Your task to perform on an android device: What's the weather today? Image 0: 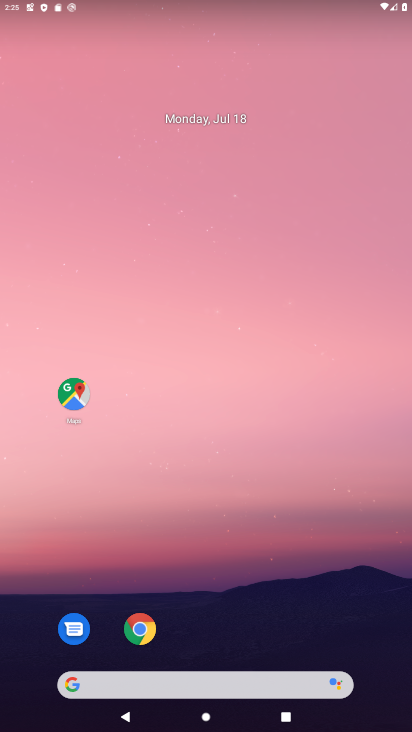
Step 0: drag from (221, 636) to (289, 190)
Your task to perform on an android device: What's the weather today? Image 1: 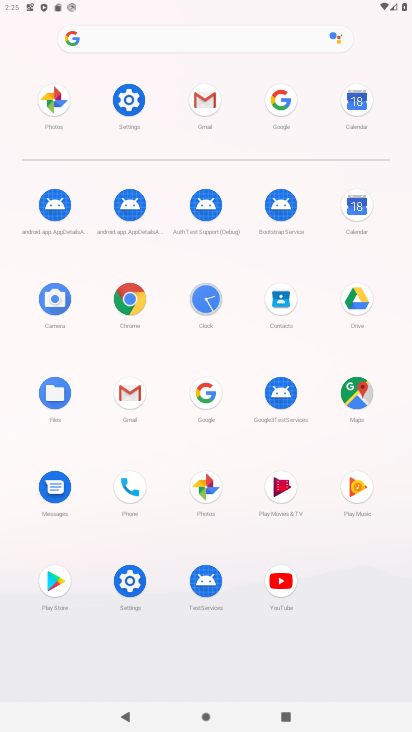
Step 1: click (220, 400)
Your task to perform on an android device: What's the weather today? Image 2: 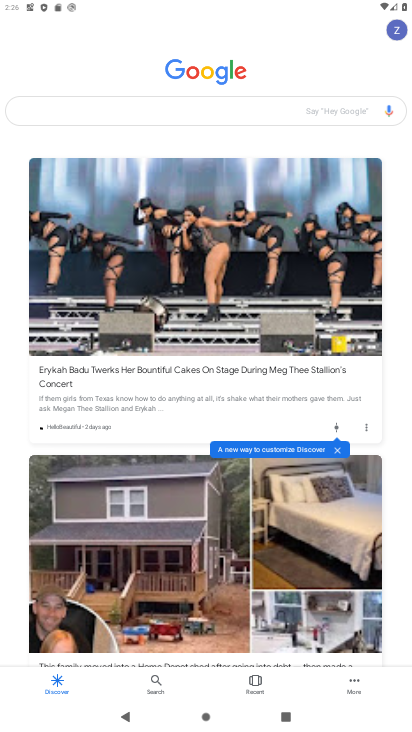
Step 2: click (184, 107)
Your task to perform on an android device: What's the weather today? Image 3: 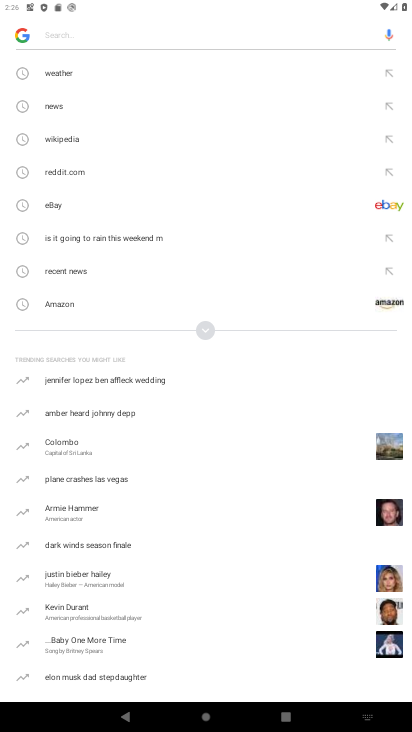
Step 3: click (49, 67)
Your task to perform on an android device: What's the weather today? Image 4: 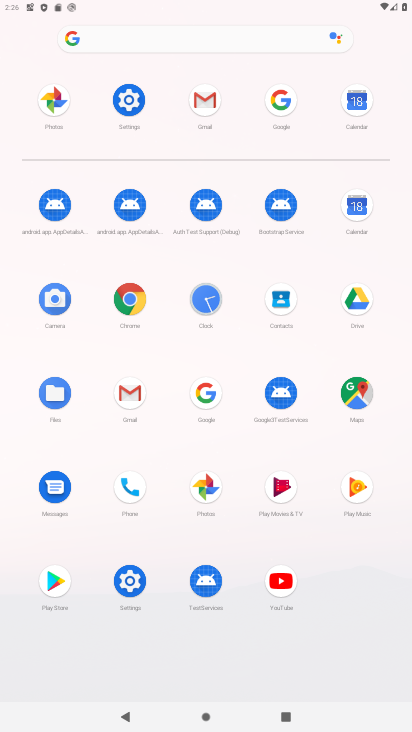
Step 4: click (283, 84)
Your task to perform on an android device: What's the weather today? Image 5: 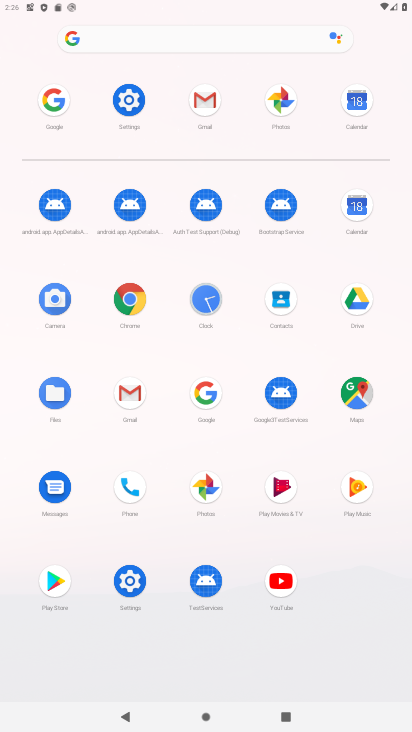
Step 5: click (218, 384)
Your task to perform on an android device: What's the weather today? Image 6: 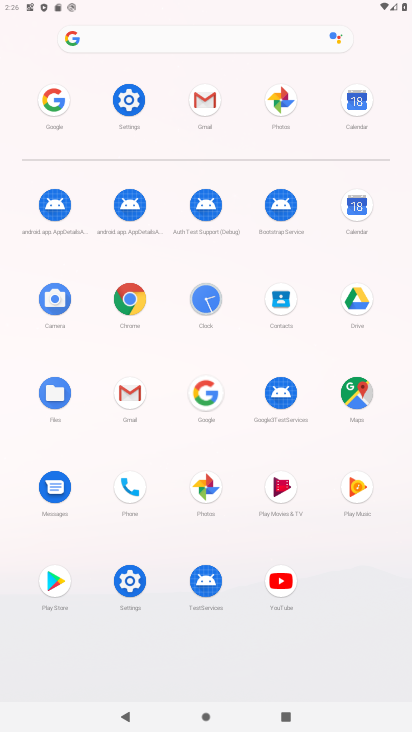
Step 6: click (212, 390)
Your task to perform on an android device: What's the weather today? Image 7: 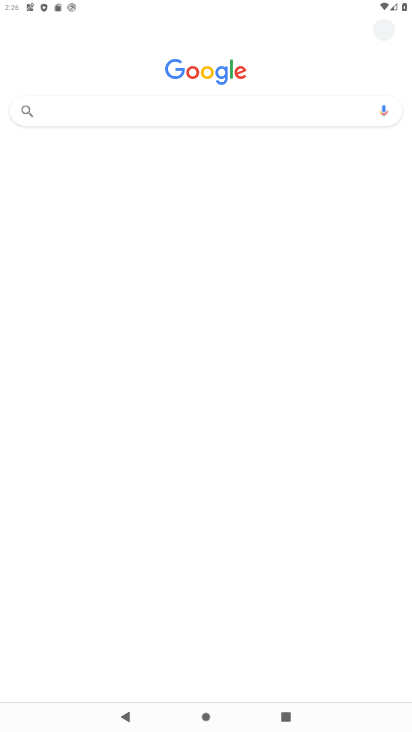
Step 7: click (130, 113)
Your task to perform on an android device: What's the weather today? Image 8: 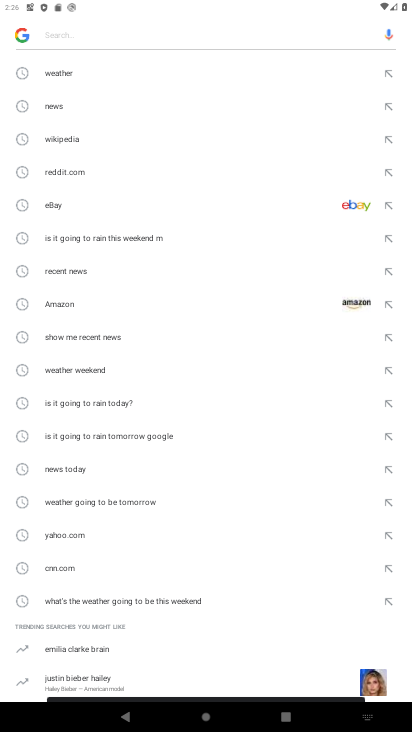
Step 8: click (137, 79)
Your task to perform on an android device: What's the weather today? Image 9: 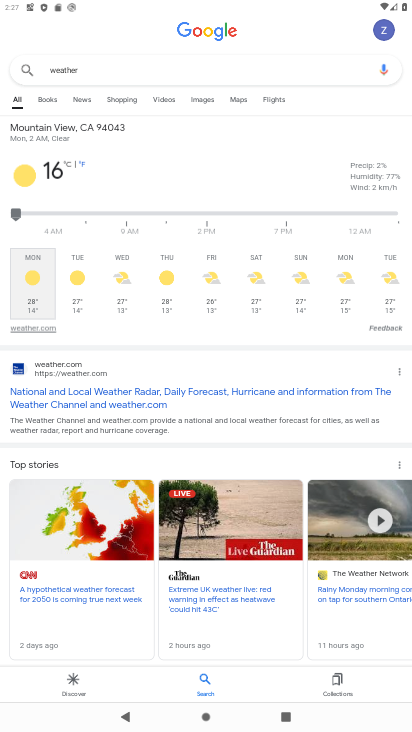
Step 9: task complete